Your task to perform on an android device: turn off picture-in-picture Image 0: 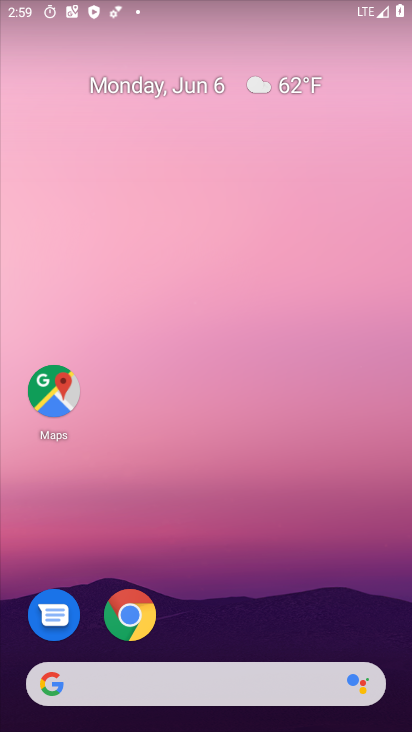
Step 0: drag from (285, 684) to (275, 100)
Your task to perform on an android device: turn off picture-in-picture Image 1: 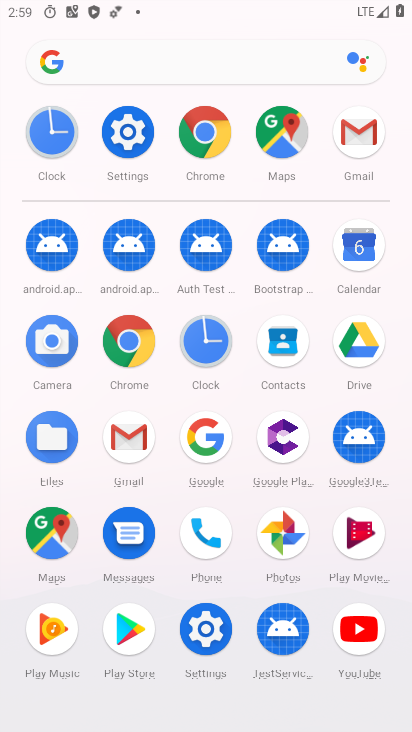
Step 1: click (120, 147)
Your task to perform on an android device: turn off picture-in-picture Image 2: 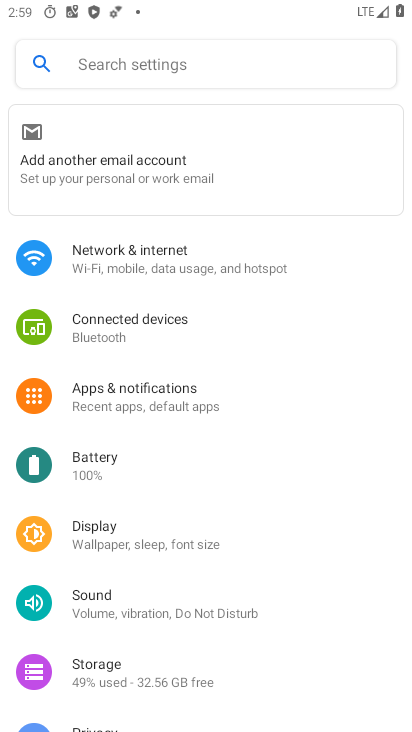
Step 2: drag from (225, 647) to (202, 155)
Your task to perform on an android device: turn off picture-in-picture Image 3: 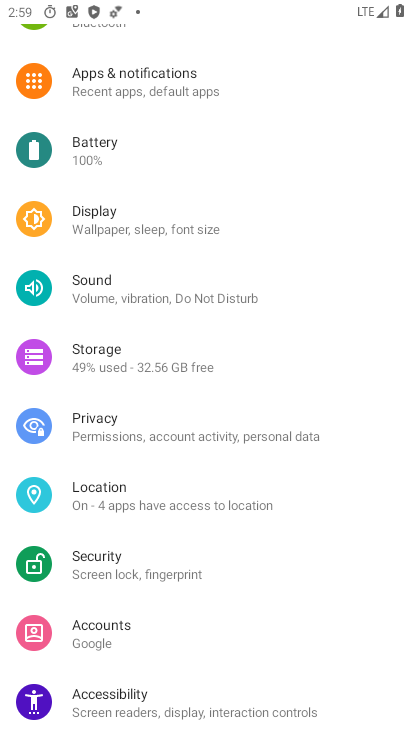
Step 3: drag from (155, 231) to (212, 113)
Your task to perform on an android device: turn off picture-in-picture Image 4: 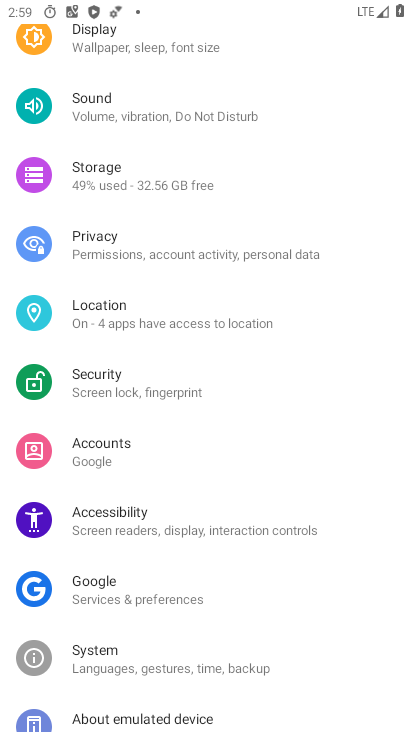
Step 4: drag from (148, 597) to (211, 74)
Your task to perform on an android device: turn off picture-in-picture Image 5: 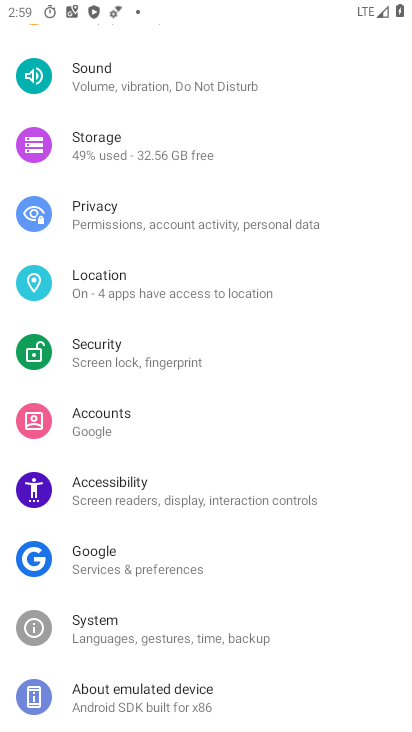
Step 5: click (96, 629)
Your task to perform on an android device: turn off picture-in-picture Image 6: 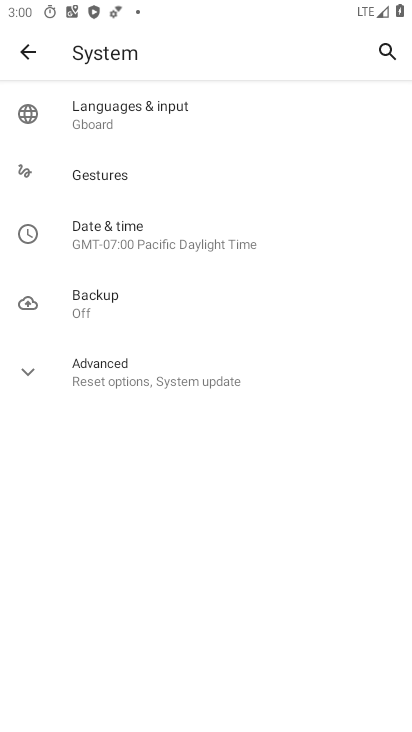
Step 6: click (140, 117)
Your task to perform on an android device: turn off picture-in-picture Image 7: 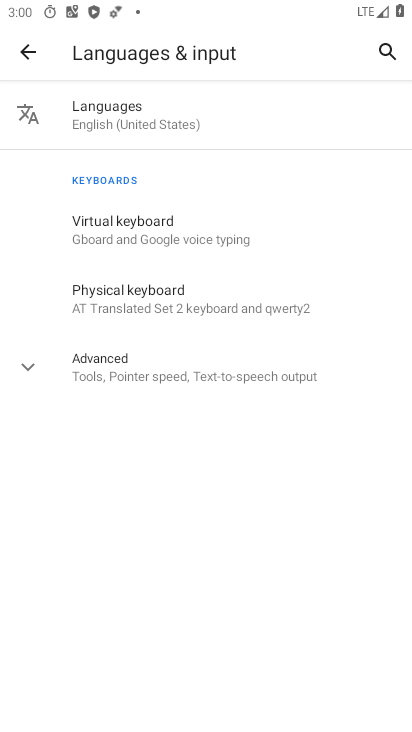
Step 7: press back button
Your task to perform on an android device: turn off picture-in-picture Image 8: 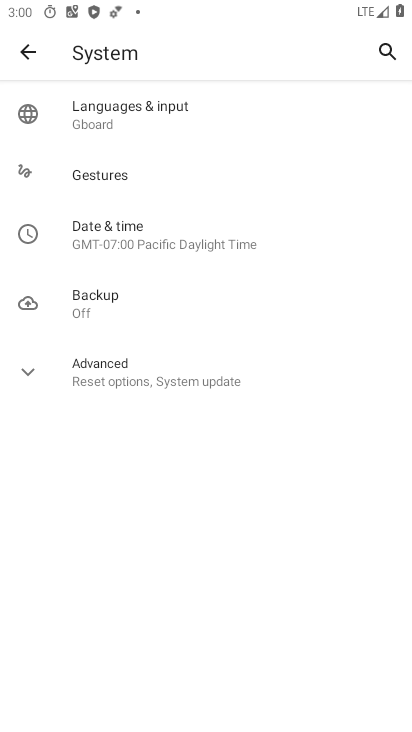
Step 8: press back button
Your task to perform on an android device: turn off picture-in-picture Image 9: 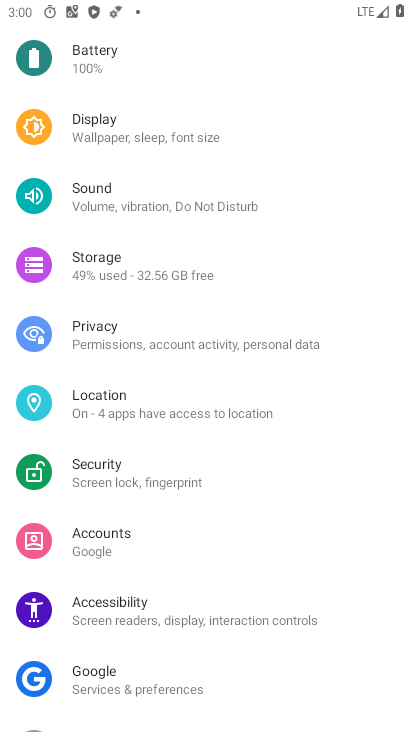
Step 9: drag from (151, 185) to (153, 586)
Your task to perform on an android device: turn off picture-in-picture Image 10: 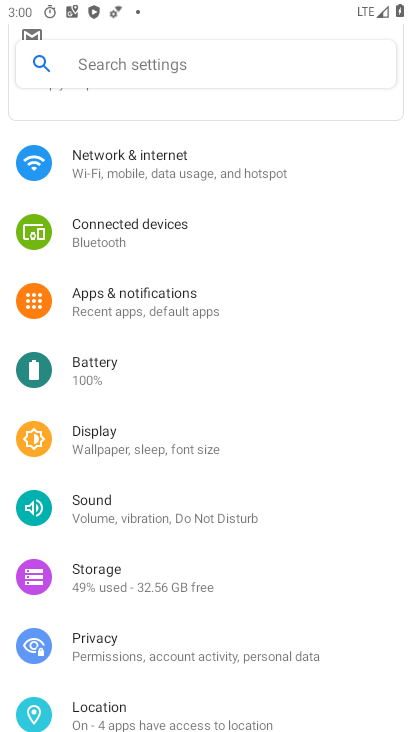
Step 10: drag from (151, 198) to (175, 543)
Your task to perform on an android device: turn off picture-in-picture Image 11: 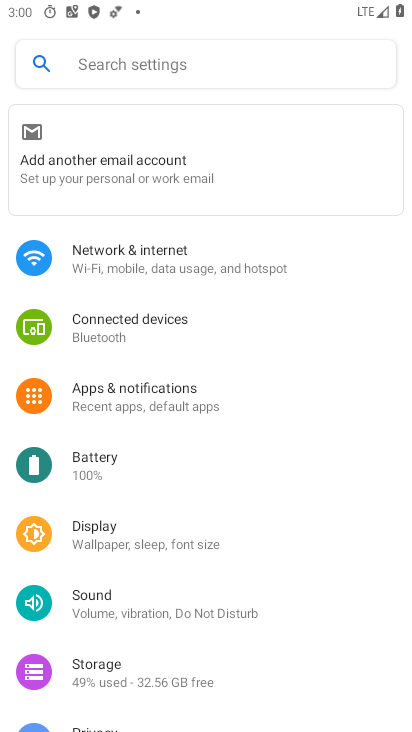
Step 11: click (135, 388)
Your task to perform on an android device: turn off picture-in-picture Image 12: 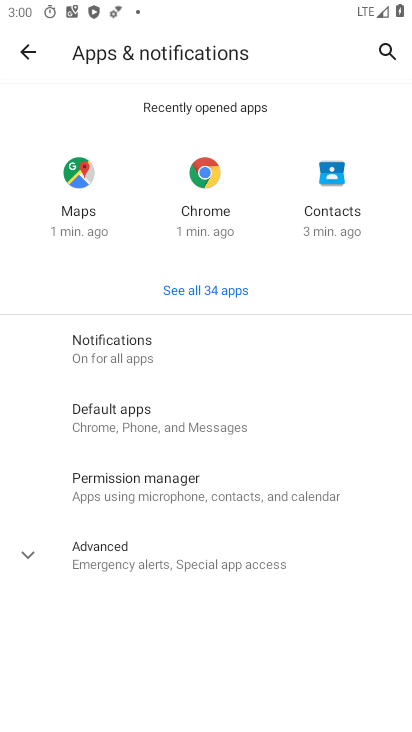
Step 12: click (106, 548)
Your task to perform on an android device: turn off picture-in-picture Image 13: 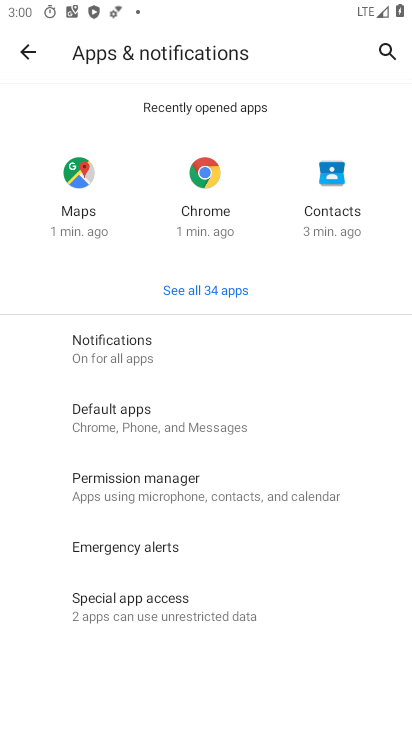
Step 13: click (147, 598)
Your task to perform on an android device: turn off picture-in-picture Image 14: 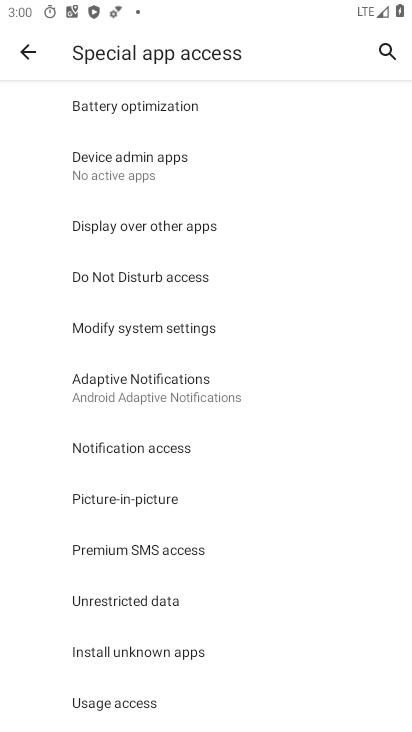
Step 14: click (129, 488)
Your task to perform on an android device: turn off picture-in-picture Image 15: 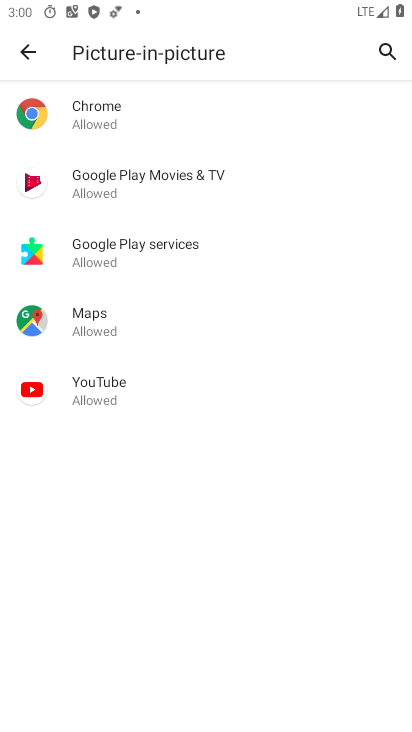
Step 15: click (109, 119)
Your task to perform on an android device: turn off picture-in-picture Image 16: 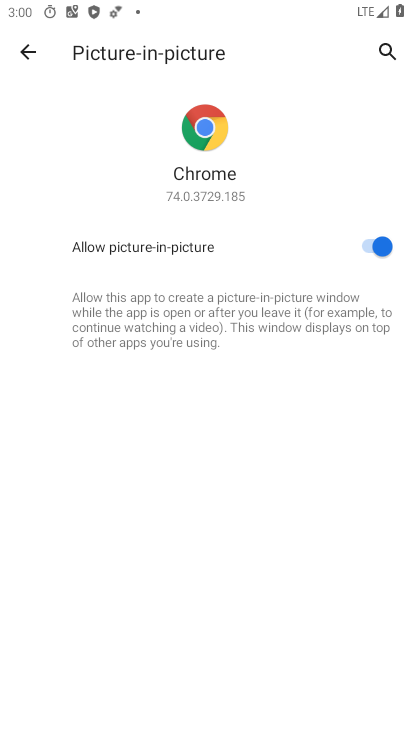
Step 16: click (358, 244)
Your task to perform on an android device: turn off picture-in-picture Image 17: 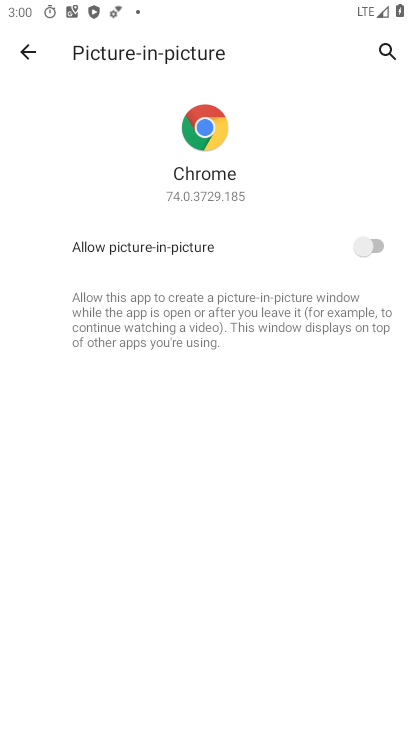
Step 17: press back button
Your task to perform on an android device: turn off picture-in-picture Image 18: 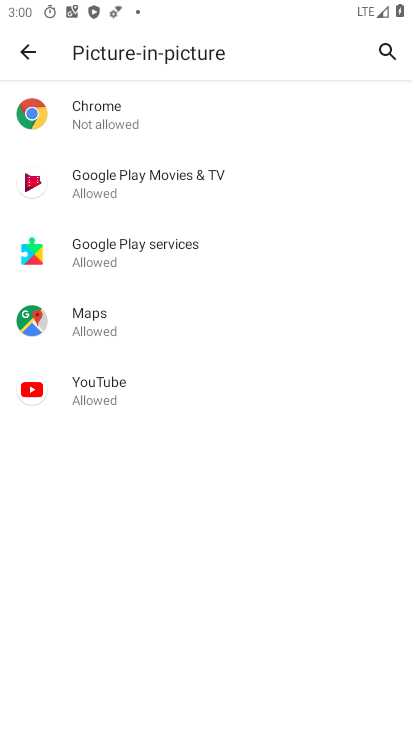
Step 18: click (155, 177)
Your task to perform on an android device: turn off picture-in-picture Image 19: 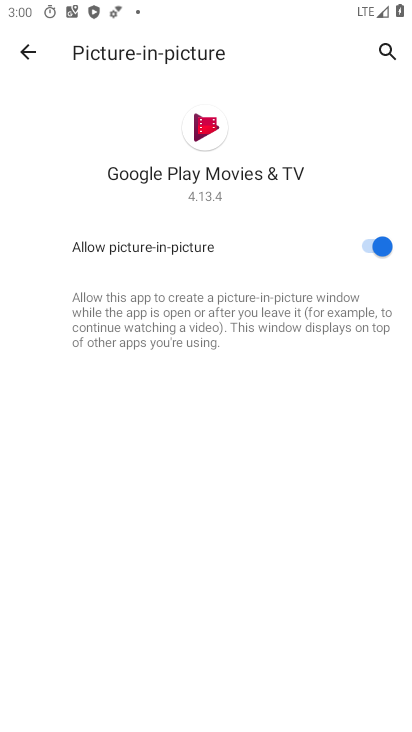
Step 19: click (378, 247)
Your task to perform on an android device: turn off picture-in-picture Image 20: 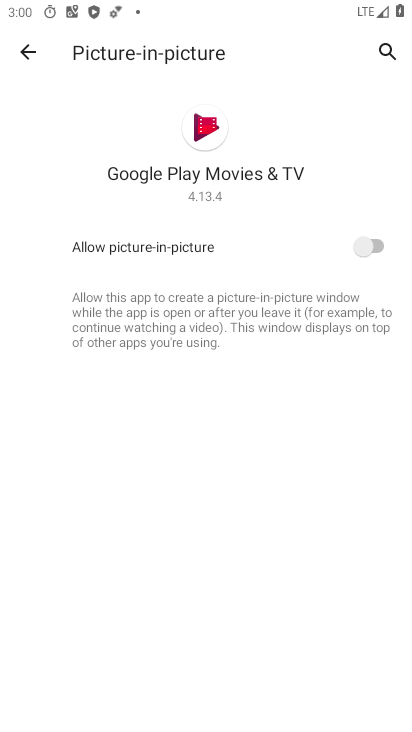
Step 20: press back button
Your task to perform on an android device: turn off picture-in-picture Image 21: 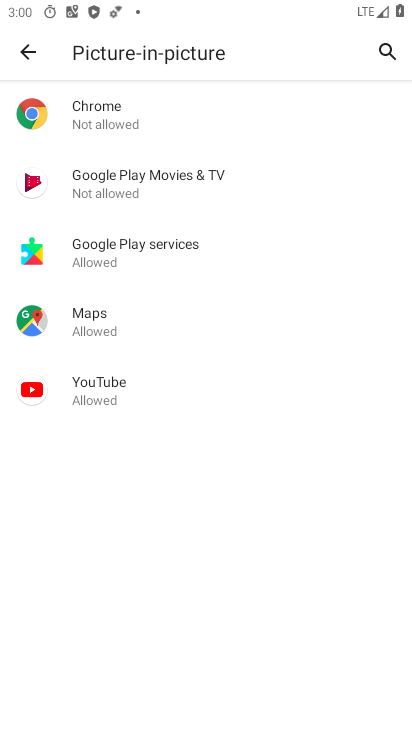
Step 21: click (211, 259)
Your task to perform on an android device: turn off picture-in-picture Image 22: 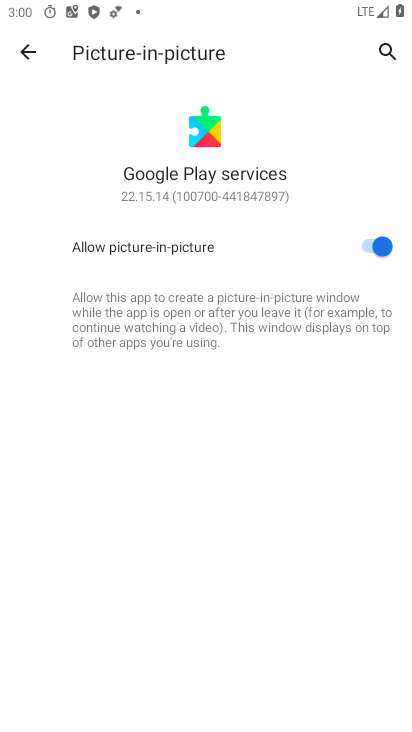
Step 22: click (365, 251)
Your task to perform on an android device: turn off picture-in-picture Image 23: 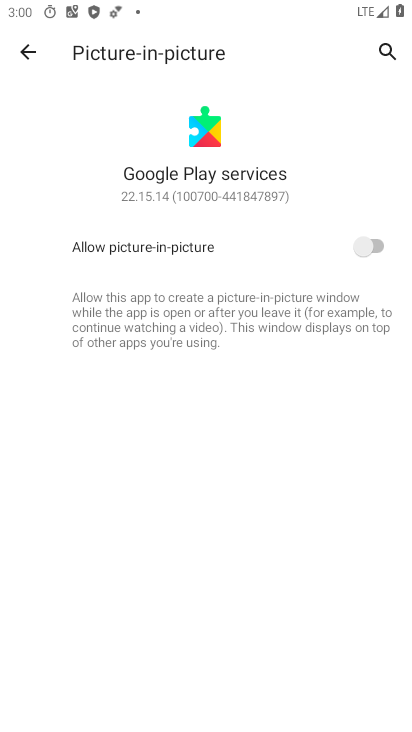
Step 23: press back button
Your task to perform on an android device: turn off picture-in-picture Image 24: 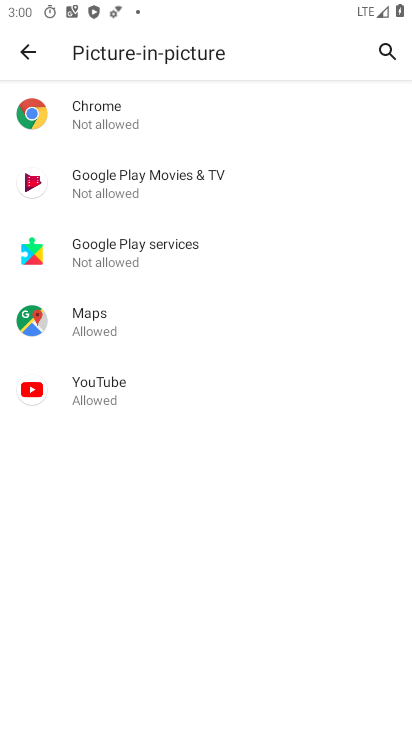
Step 24: click (166, 317)
Your task to perform on an android device: turn off picture-in-picture Image 25: 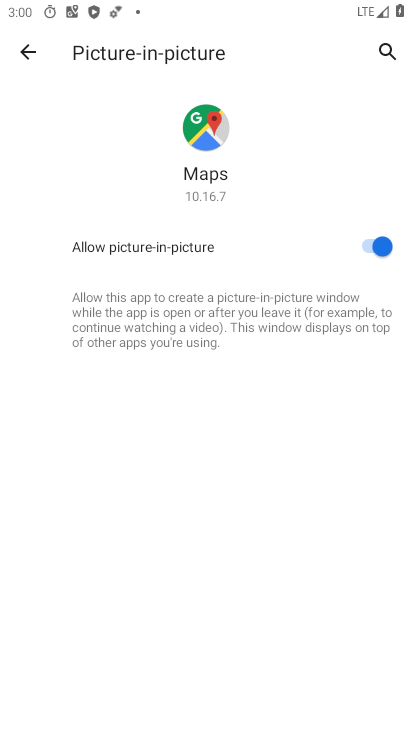
Step 25: click (376, 251)
Your task to perform on an android device: turn off picture-in-picture Image 26: 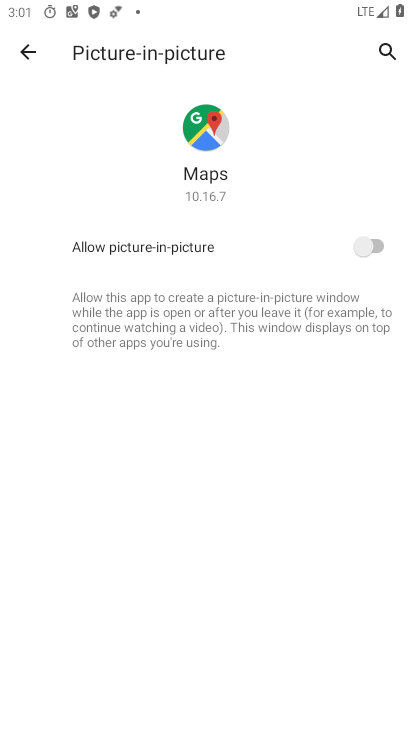
Step 26: press back button
Your task to perform on an android device: turn off picture-in-picture Image 27: 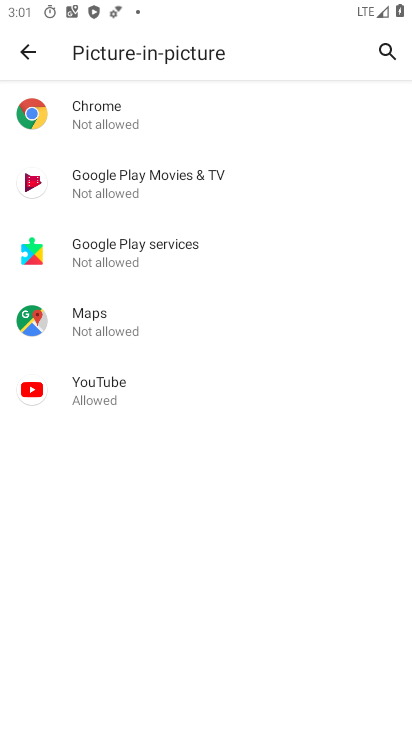
Step 27: click (156, 388)
Your task to perform on an android device: turn off picture-in-picture Image 28: 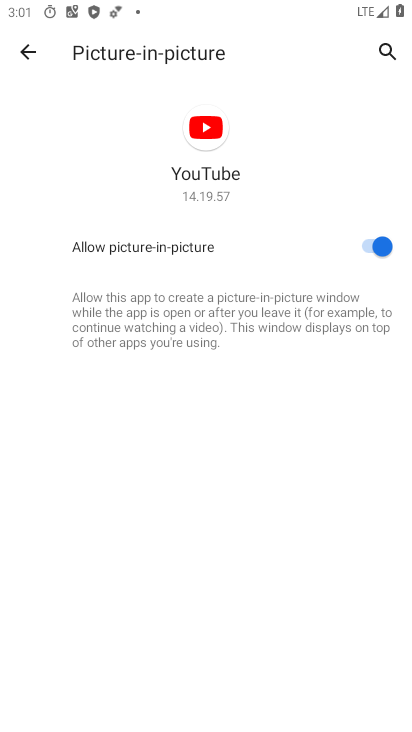
Step 28: click (372, 249)
Your task to perform on an android device: turn off picture-in-picture Image 29: 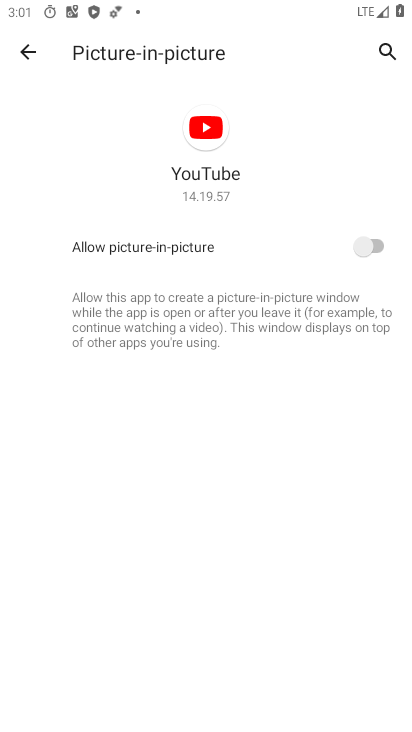
Step 29: task complete